Your task to perform on an android device: Check the weather Image 0: 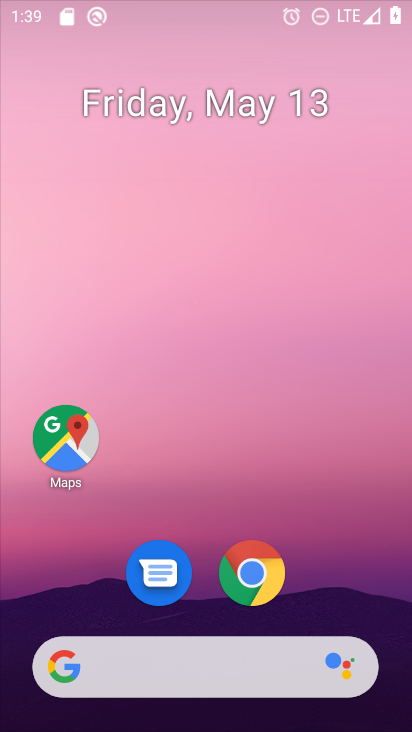
Step 0: click (235, 685)
Your task to perform on an android device: Check the weather Image 1: 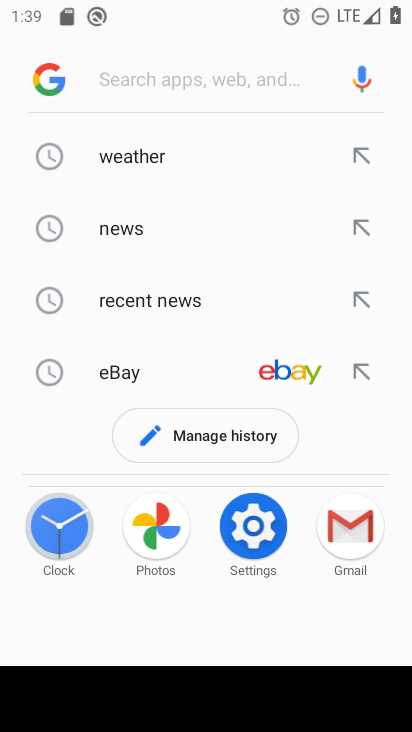
Step 1: click (275, 143)
Your task to perform on an android device: Check the weather Image 2: 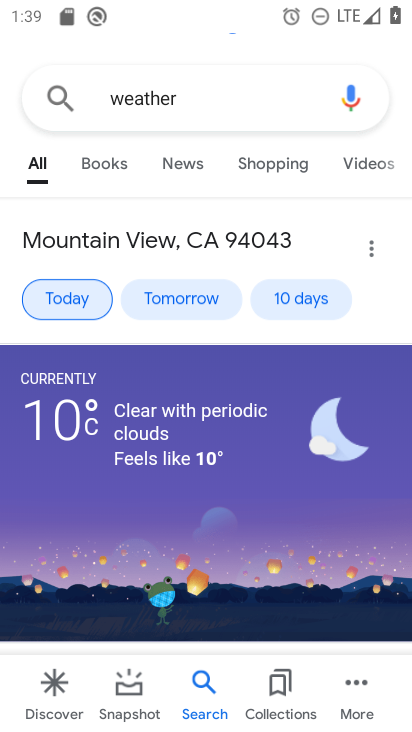
Step 2: task complete